Your task to perform on an android device: turn off translation in the chrome app Image 0: 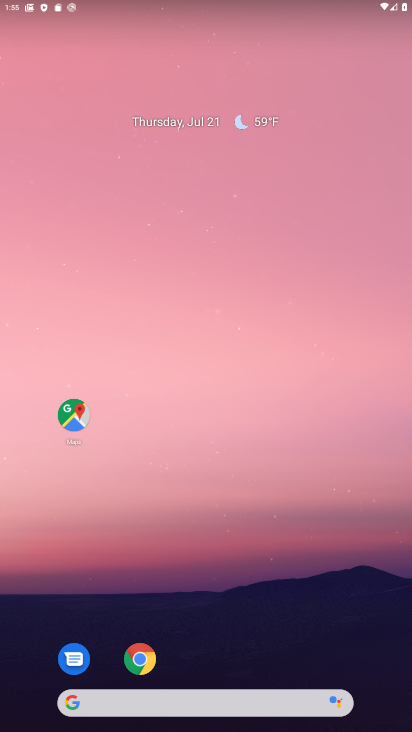
Step 0: drag from (314, 632) to (273, 10)
Your task to perform on an android device: turn off translation in the chrome app Image 1: 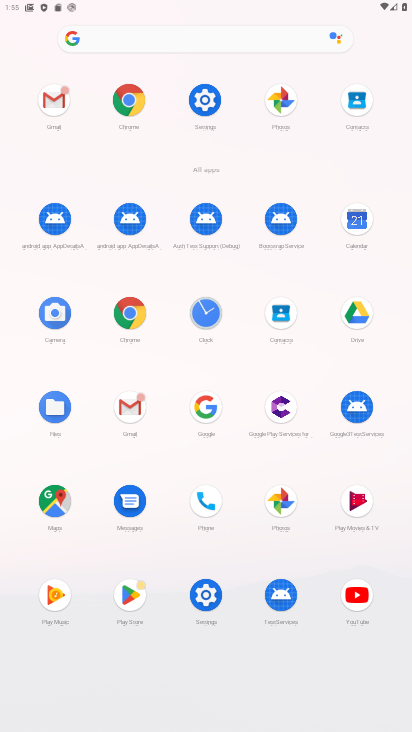
Step 1: click (128, 97)
Your task to perform on an android device: turn off translation in the chrome app Image 2: 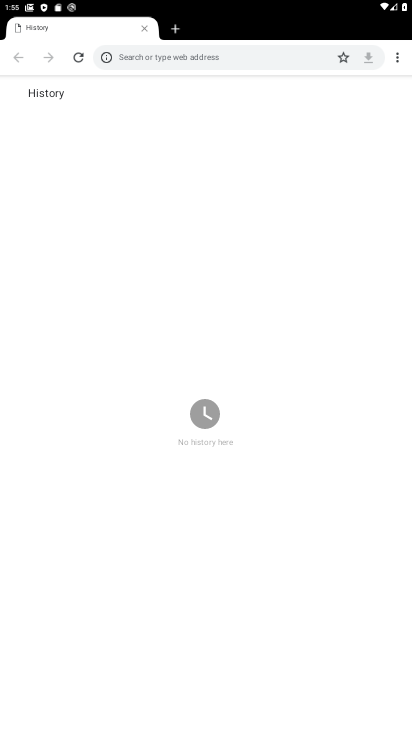
Step 2: drag from (395, 57) to (276, 270)
Your task to perform on an android device: turn off translation in the chrome app Image 3: 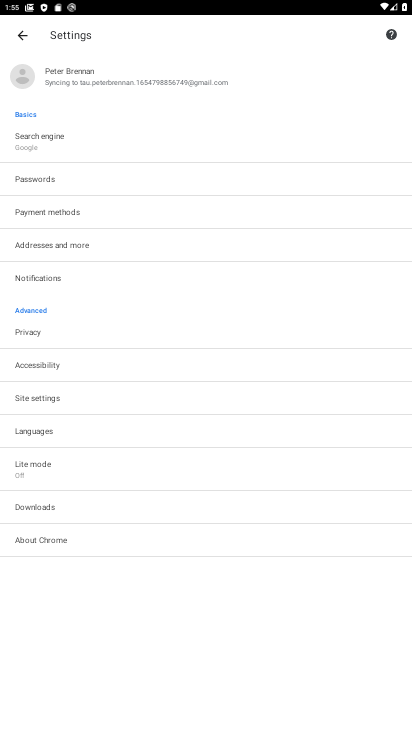
Step 3: click (35, 426)
Your task to perform on an android device: turn off translation in the chrome app Image 4: 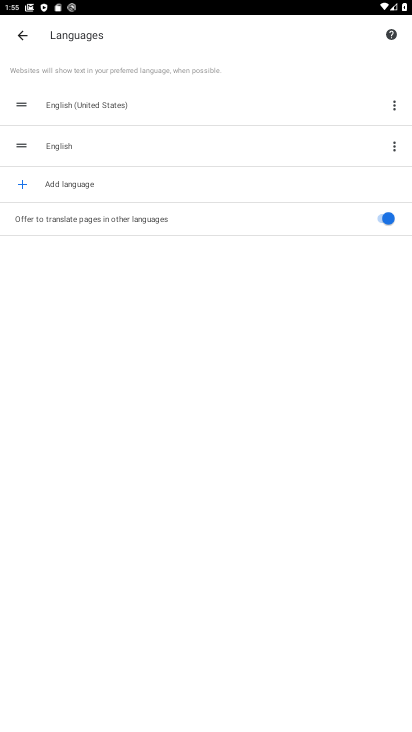
Step 4: click (387, 211)
Your task to perform on an android device: turn off translation in the chrome app Image 5: 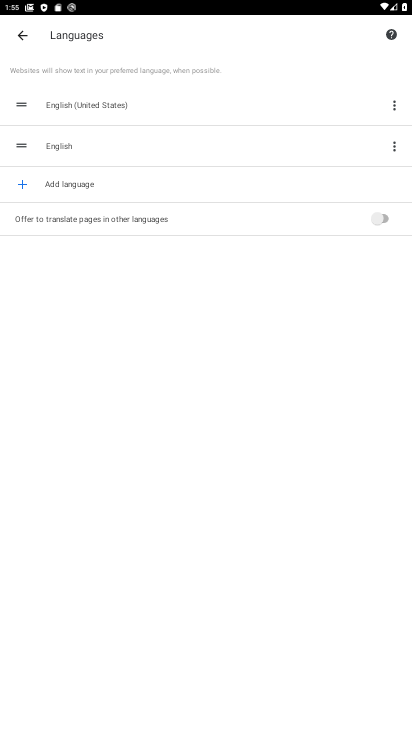
Step 5: task complete